Your task to perform on an android device: Go to battery settings Image 0: 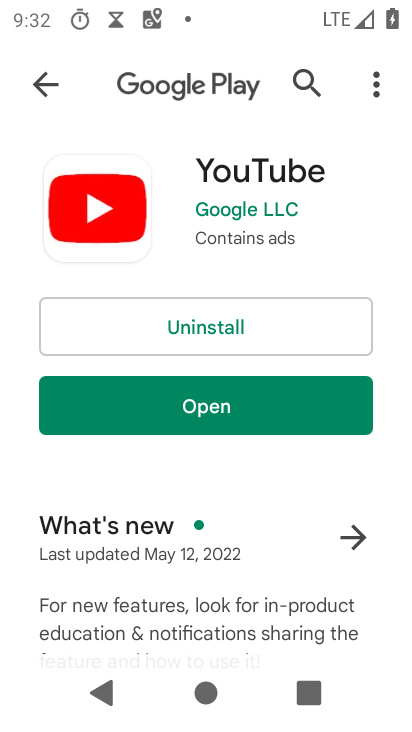
Step 0: press home button
Your task to perform on an android device: Go to battery settings Image 1: 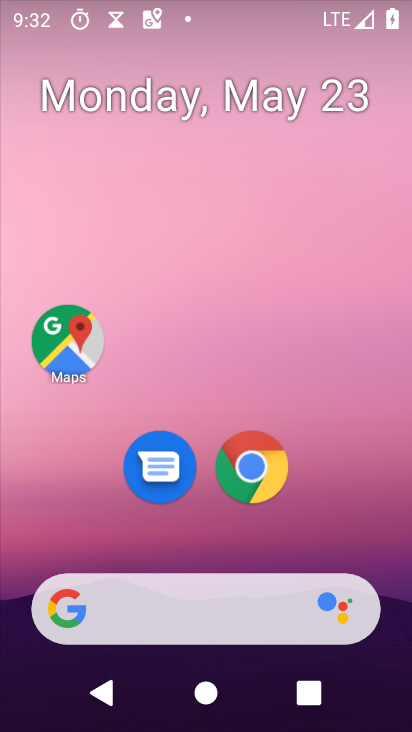
Step 1: drag from (321, 533) to (202, 6)
Your task to perform on an android device: Go to battery settings Image 2: 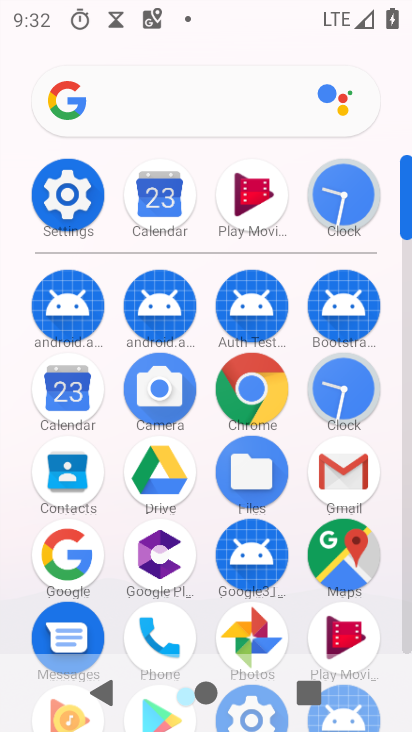
Step 2: click (95, 200)
Your task to perform on an android device: Go to battery settings Image 3: 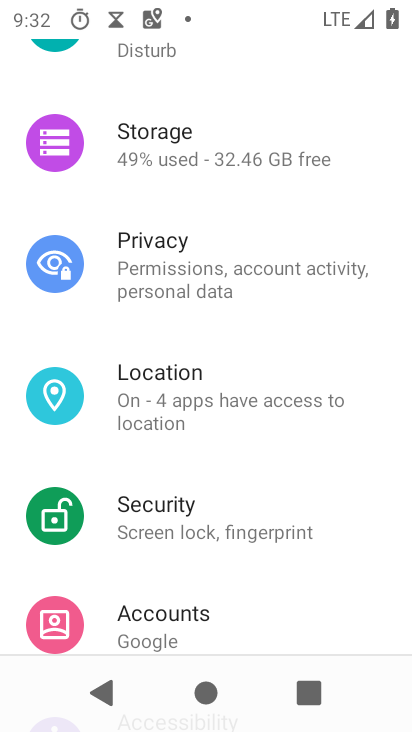
Step 3: drag from (240, 211) to (211, 682)
Your task to perform on an android device: Go to battery settings Image 4: 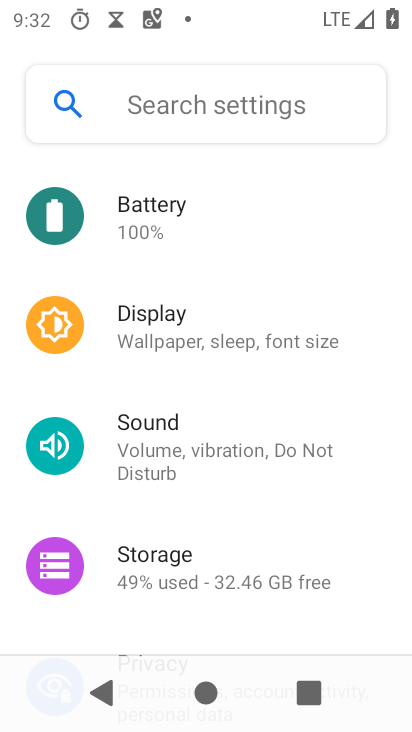
Step 4: click (201, 213)
Your task to perform on an android device: Go to battery settings Image 5: 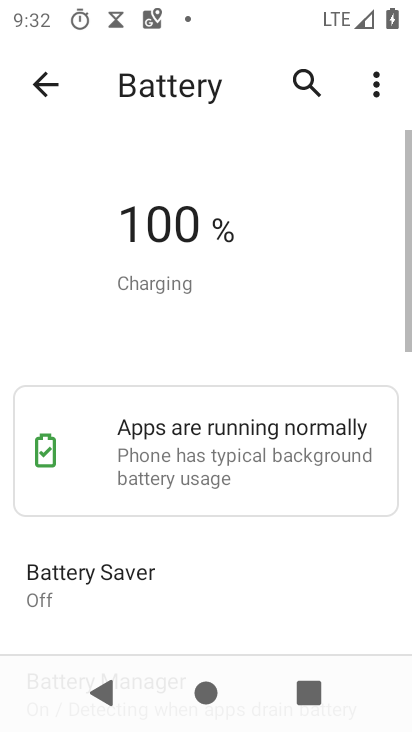
Step 5: task complete